Your task to perform on an android device: turn on the 12-hour format for clock Image 0: 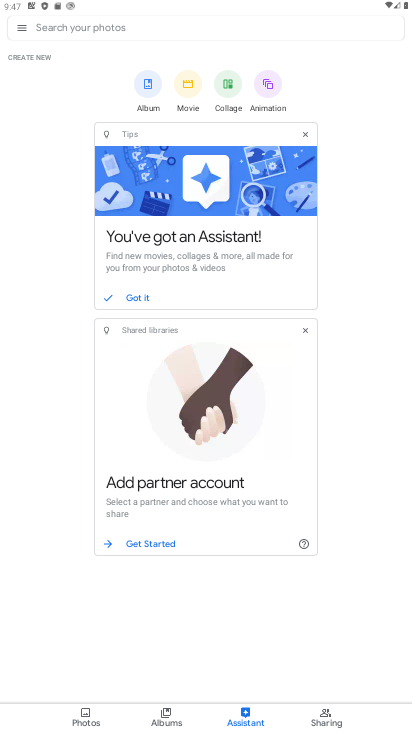
Step 0: press home button
Your task to perform on an android device: turn on the 12-hour format for clock Image 1: 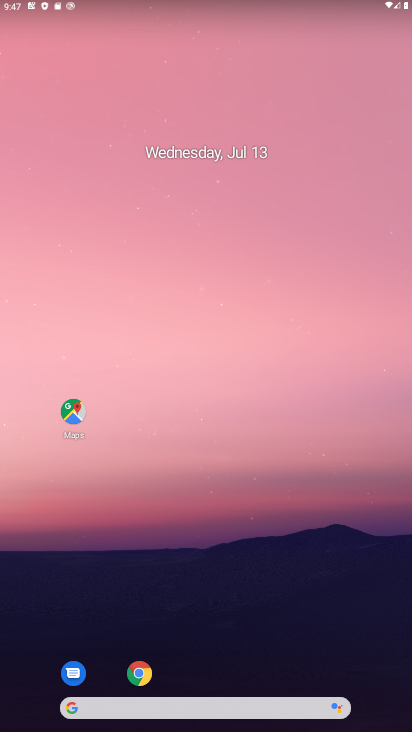
Step 1: drag from (174, 680) to (379, 4)
Your task to perform on an android device: turn on the 12-hour format for clock Image 2: 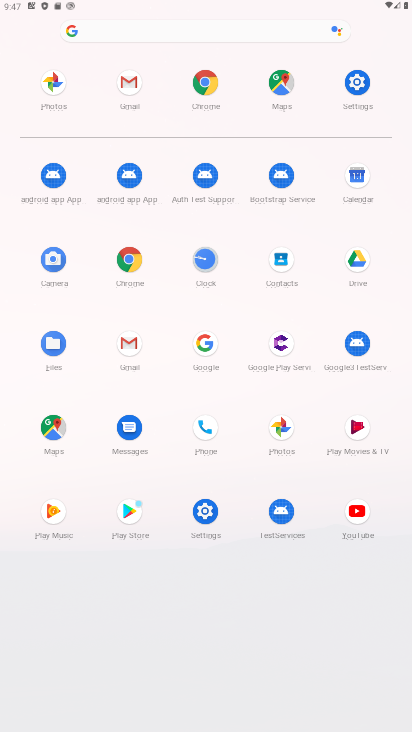
Step 2: click (353, 82)
Your task to perform on an android device: turn on the 12-hour format for clock Image 3: 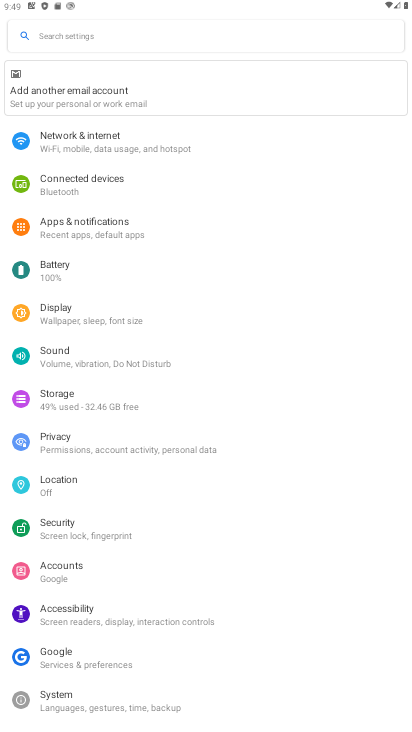
Step 3: task complete